Your task to perform on an android device: Open the stopwatch Image 0: 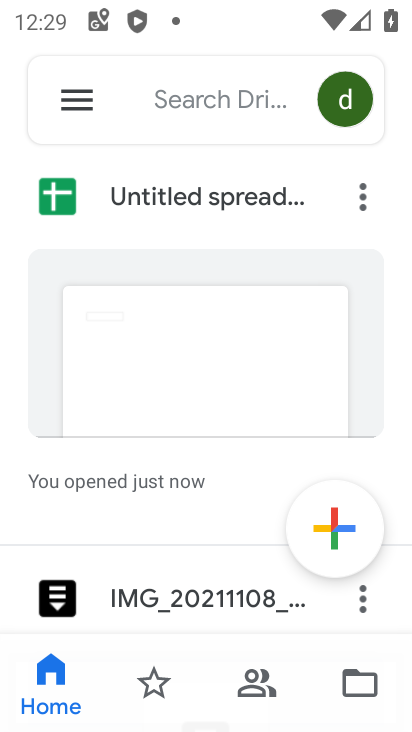
Step 0: press home button
Your task to perform on an android device: Open the stopwatch Image 1: 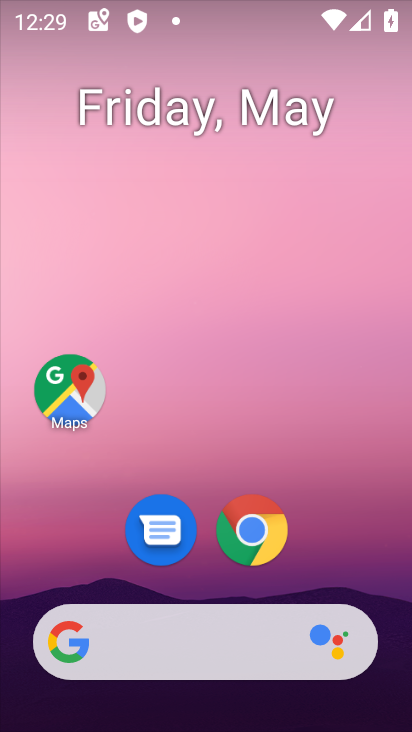
Step 1: drag from (345, 556) to (255, 0)
Your task to perform on an android device: Open the stopwatch Image 2: 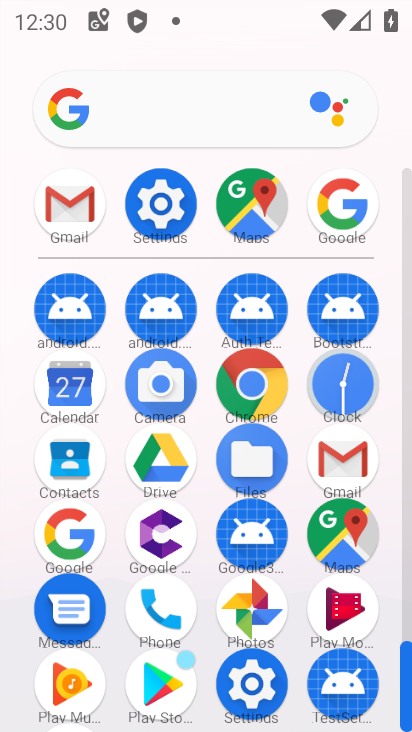
Step 2: click (342, 382)
Your task to perform on an android device: Open the stopwatch Image 3: 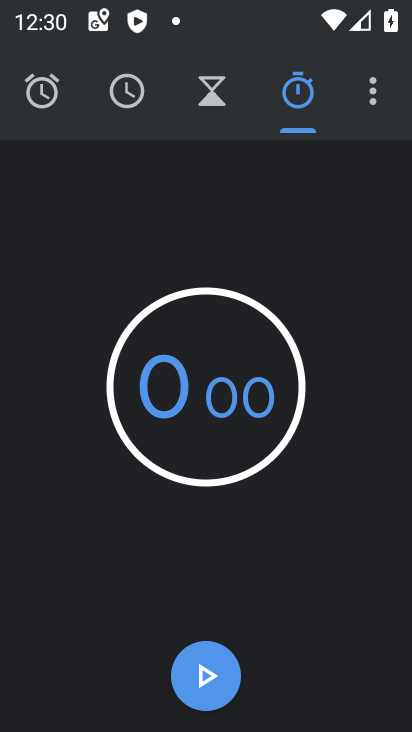
Step 3: click (302, 101)
Your task to perform on an android device: Open the stopwatch Image 4: 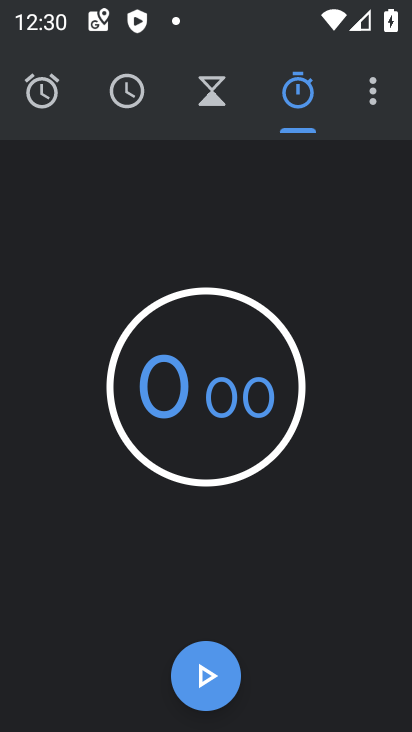
Step 4: task complete